Your task to perform on an android device: turn on location history Image 0: 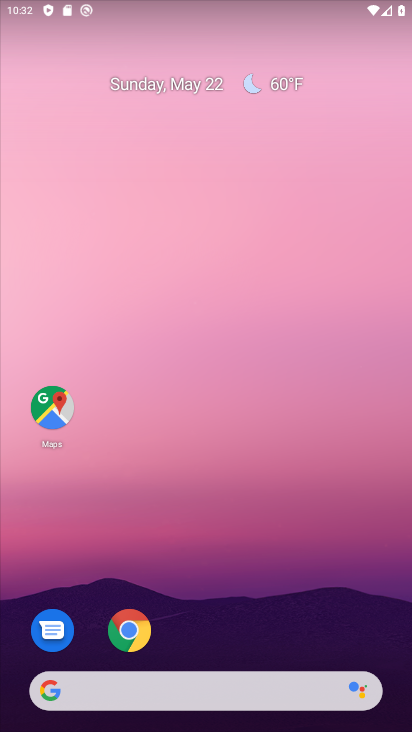
Step 0: drag from (300, 607) to (207, 71)
Your task to perform on an android device: turn on location history Image 1: 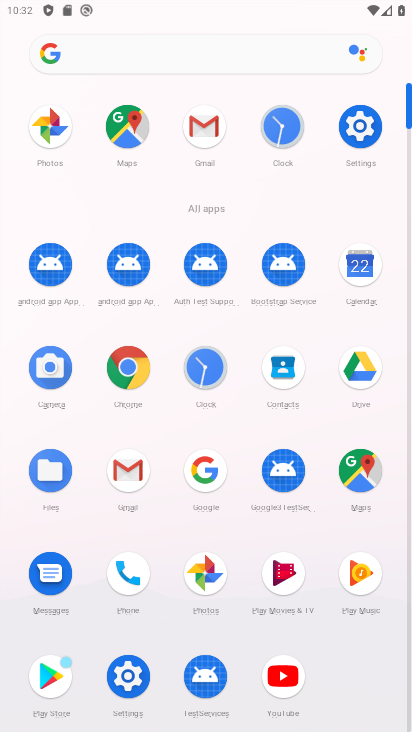
Step 1: click (361, 128)
Your task to perform on an android device: turn on location history Image 2: 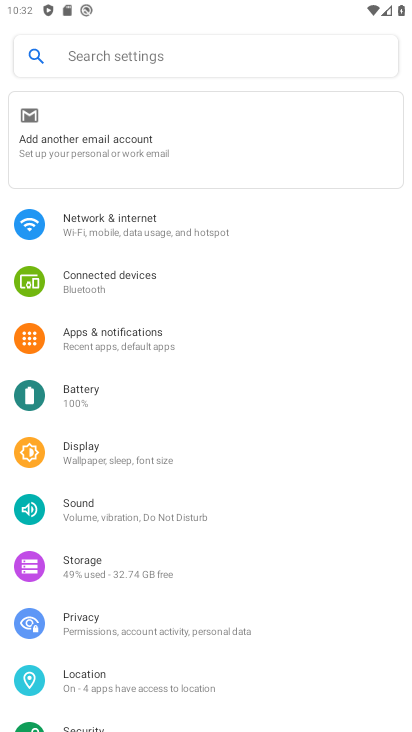
Step 2: click (87, 677)
Your task to perform on an android device: turn on location history Image 3: 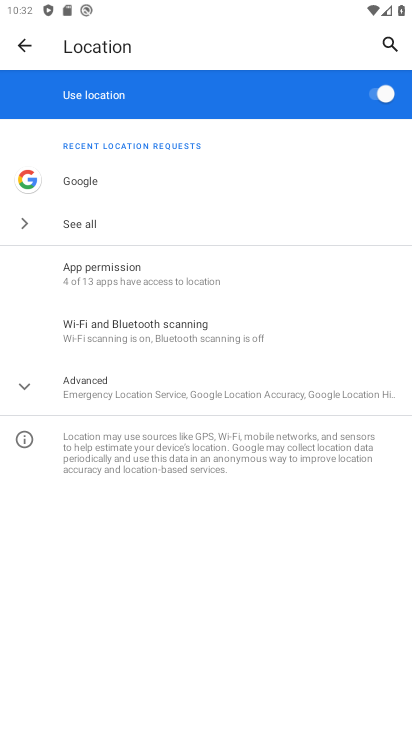
Step 3: click (170, 392)
Your task to perform on an android device: turn on location history Image 4: 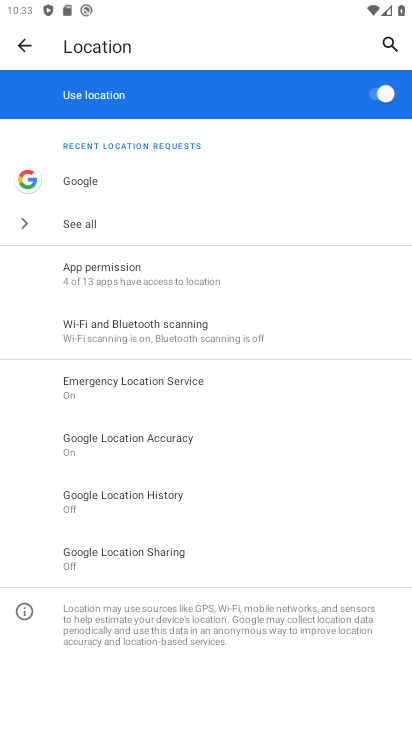
Step 4: click (144, 492)
Your task to perform on an android device: turn on location history Image 5: 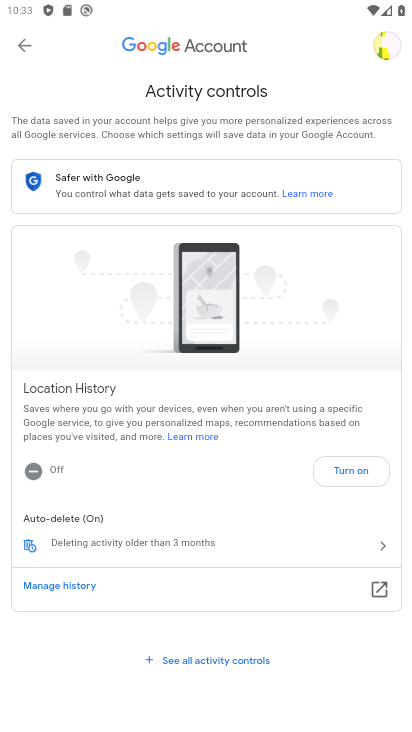
Step 5: click (352, 468)
Your task to perform on an android device: turn on location history Image 6: 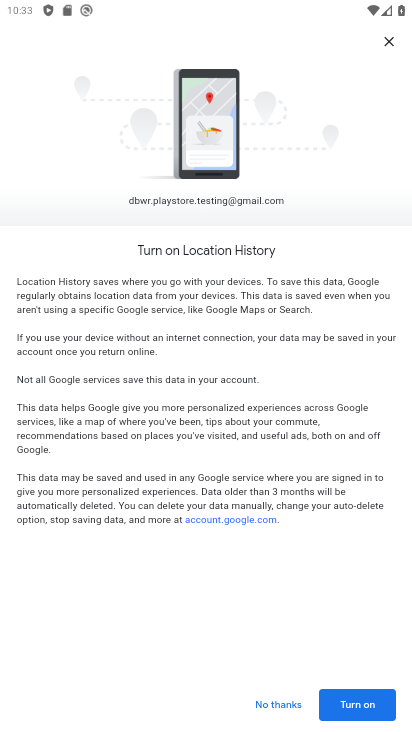
Step 6: click (355, 705)
Your task to perform on an android device: turn on location history Image 7: 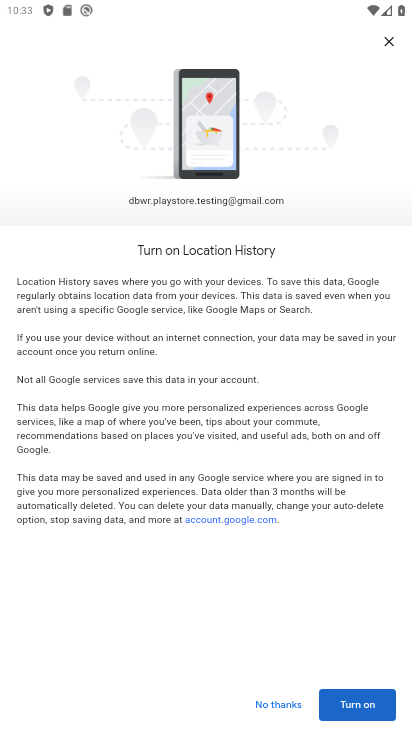
Step 7: click (355, 705)
Your task to perform on an android device: turn on location history Image 8: 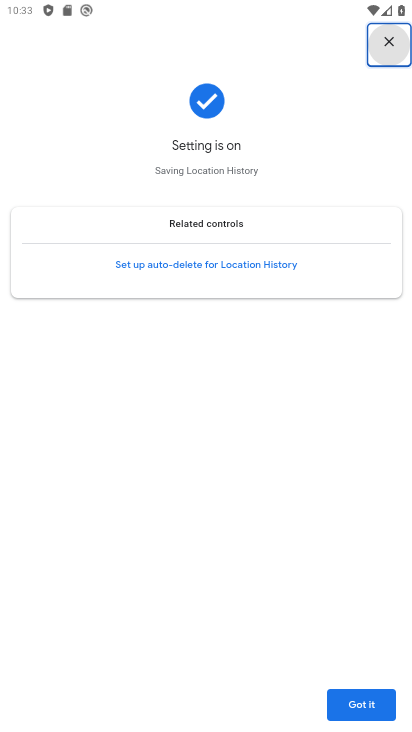
Step 8: click (367, 709)
Your task to perform on an android device: turn on location history Image 9: 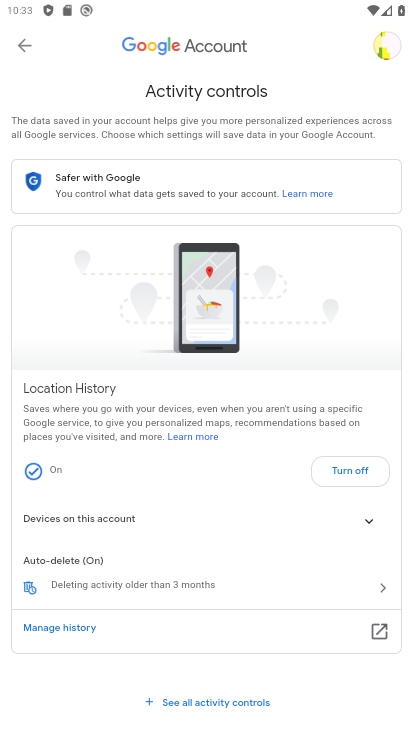
Step 9: task complete